Your task to perform on an android device: Check the settings for the Amazon Alexa app Image 0: 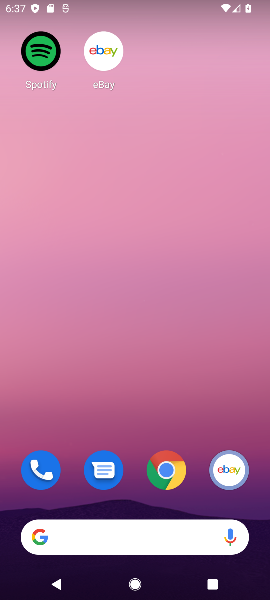
Step 0: drag from (99, 503) to (168, 148)
Your task to perform on an android device: Check the settings for the Amazon Alexa app Image 1: 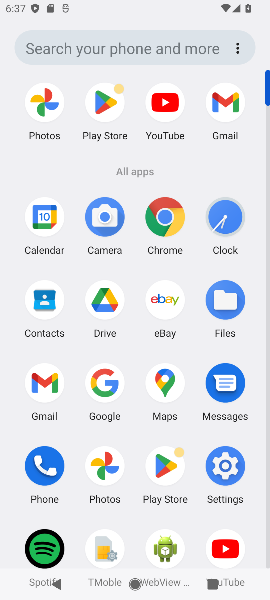
Step 1: click (103, 107)
Your task to perform on an android device: Check the settings for the Amazon Alexa app Image 2: 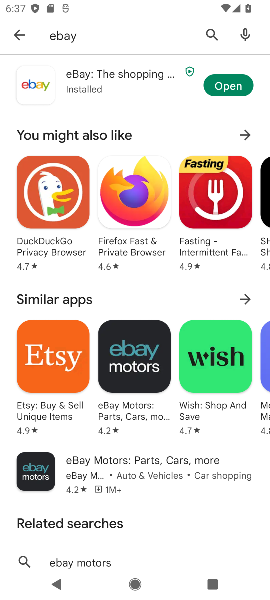
Step 2: click (213, 34)
Your task to perform on an android device: Check the settings for the Amazon Alexa app Image 3: 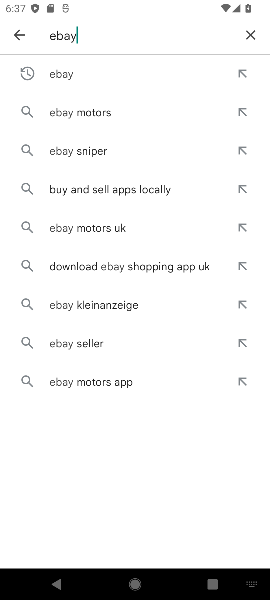
Step 3: type "amazon alexa"
Your task to perform on an android device: Check the settings for the Amazon Alexa app Image 4: 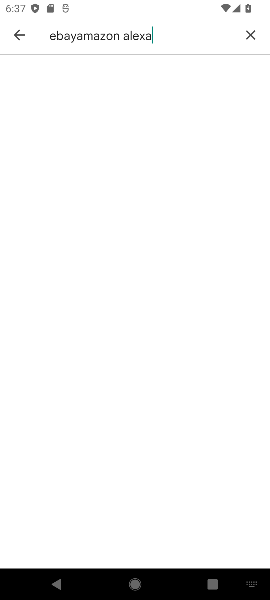
Step 4: click (253, 34)
Your task to perform on an android device: Check the settings for the Amazon Alexa app Image 5: 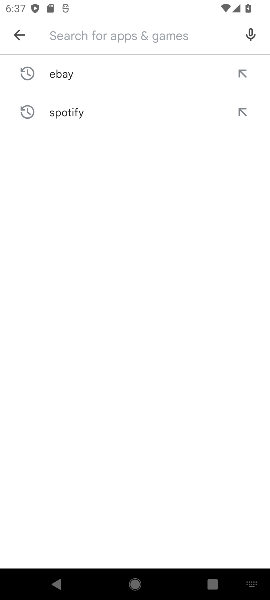
Step 5: type "amazon alexa"
Your task to perform on an android device: Check the settings for the Amazon Alexa app Image 6: 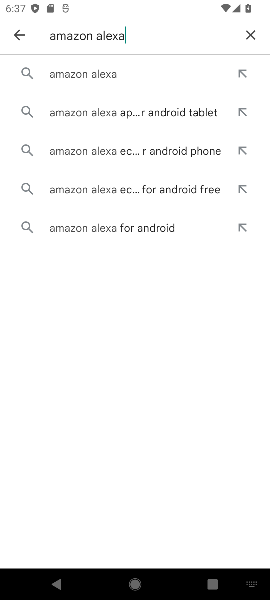
Step 6: click (165, 83)
Your task to perform on an android device: Check the settings for the Amazon Alexa app Image 7: 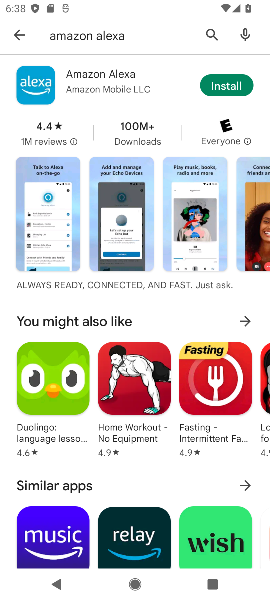
Step 7: click (213, 78)
Your task to perform on an android device: Check the settings for the Amazon Alexa app Image 8: 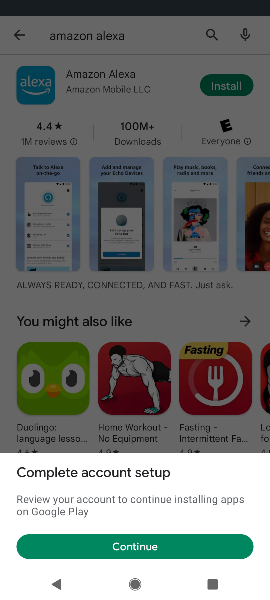
Step 8: click (117, 537)
Your task to perform on an android device: Check the settings for the Amazon Alexa app Image 9: 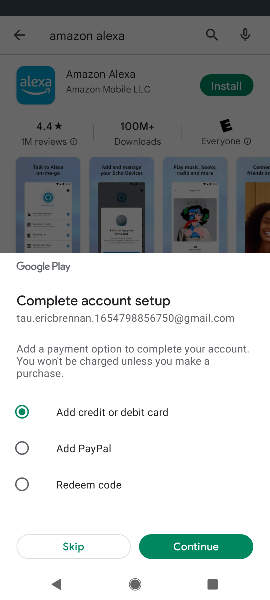
Step 9: click (117, 537)
Your task to perform on an android device: Check the settings for the Amazon Alexa app Image 10: 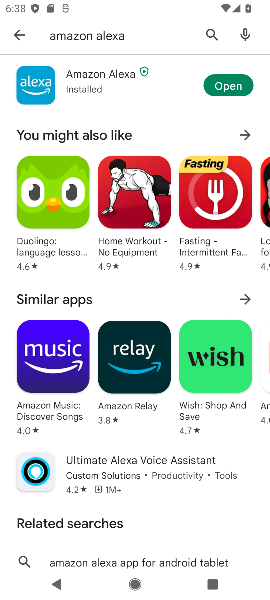
Step 10: click (215, 80)
Your task to perform on an android device: Check the settings for the Amazon Alexa app Image 11: 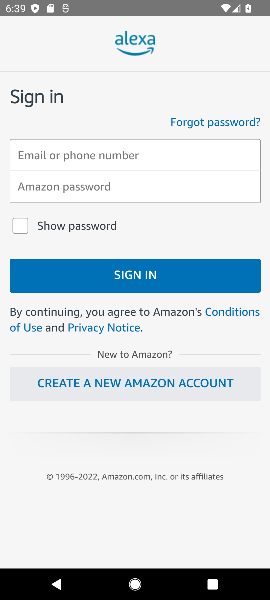
Step 11: task complete